Your task to perform on an android device: choose inbox layout in the gmail app Image 0: 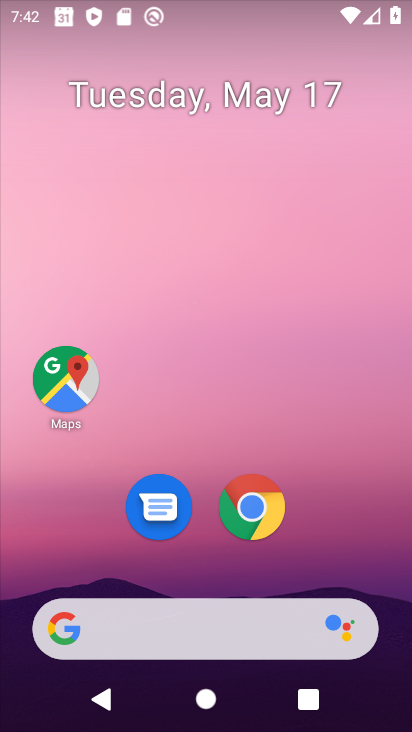
Step 0: drag from (364, 586) to (349, 19)
Your task to perform on an android device: choose inbox layout in the gmail app Image 1: 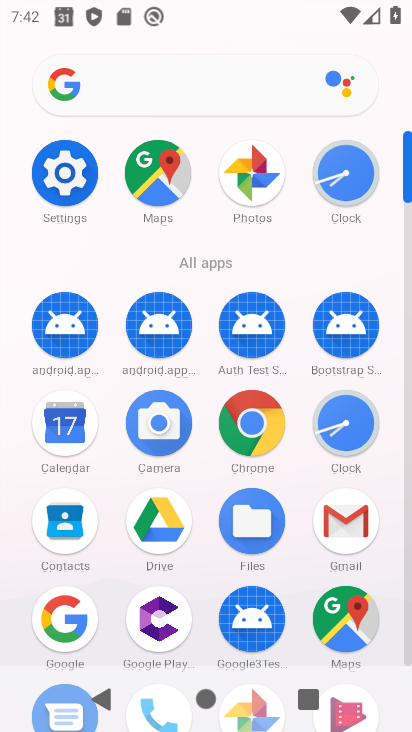
Step 1: click (349, 532)
Your task to perform on an android device: choose inbox layout in the gmail app Image 2: 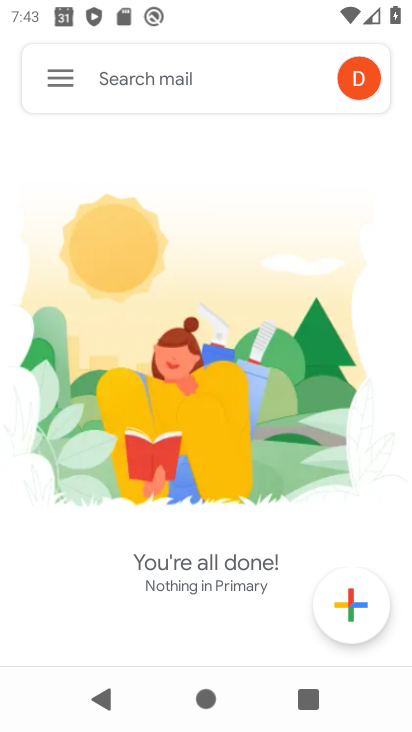
Step 2: click (55, 82)
Your task to perform on an android device: choose inbox layout in the gmail app Image 3: 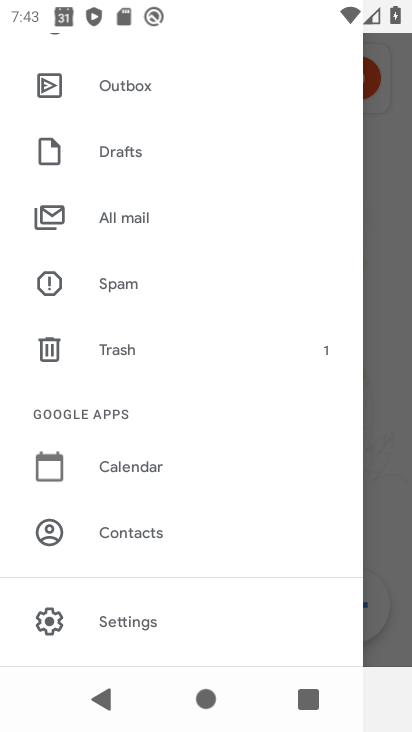
Step 3: drag from (213, 506) to (192, 236)
Your task to perform on an android device: choose inbox layout in the gmail app Image 4: 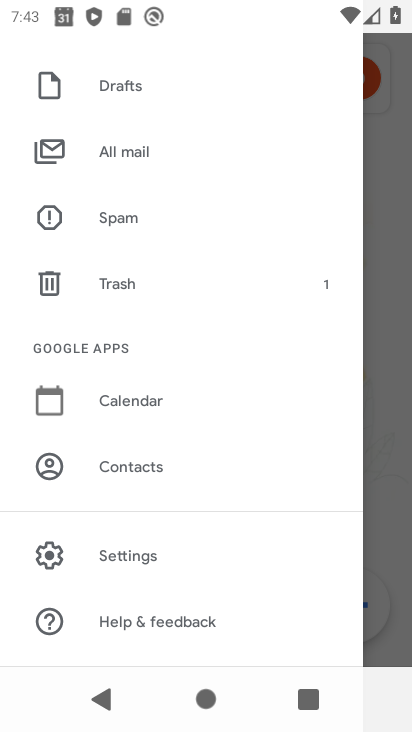
Step 4: click (117, 556)
Your task to perform on an android device: choose inbox layout in the gmail app Image 5: 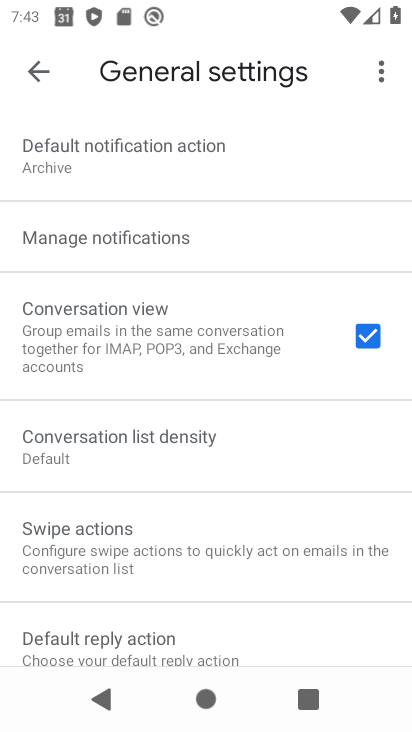
Step 5: click (30, 69)
Your task to perform on an android device: choose inbox layout in the gmail app Image 6: 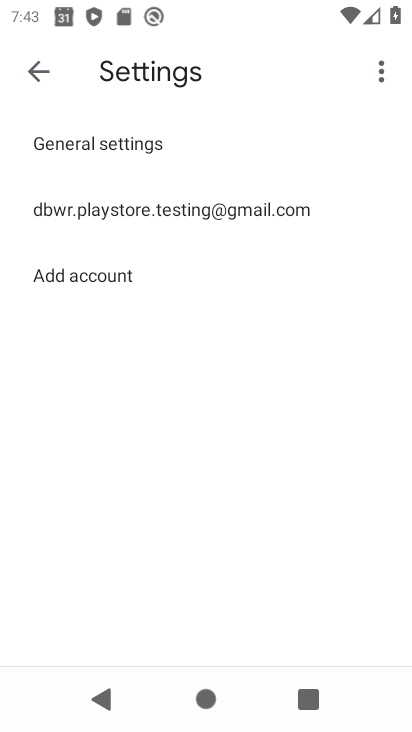
Step 6: click (73, 227)
Your task to perform on an android device: choose inbox layout in the gmail app Image 7: 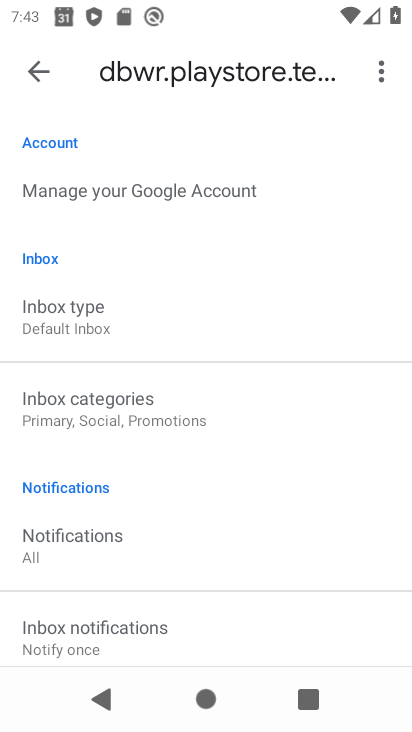
Step 7: click (82, 322)
Your task to perform on an android device: choose inbox layout in the gmail app Image 8: 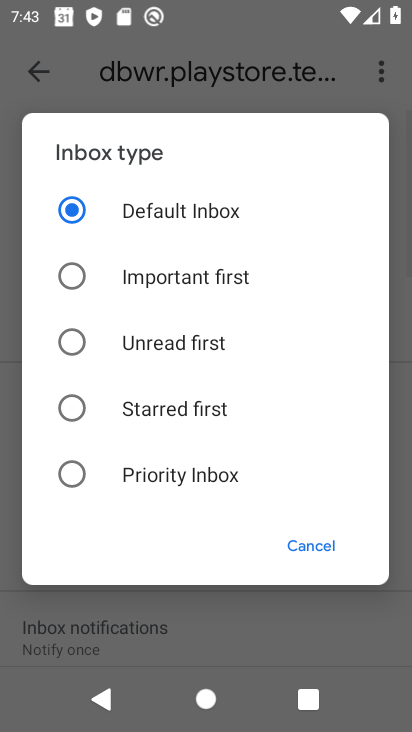
Step 8: click (69, 340)
Your task to perform on an android device: choose inbox layout in the gmail app Image 9: 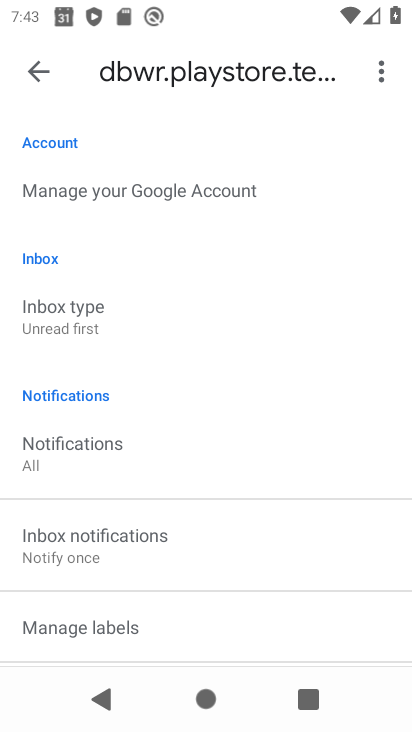
Step 9: task complete